Your task to perform on an android device: toggle notification dots Image 0: 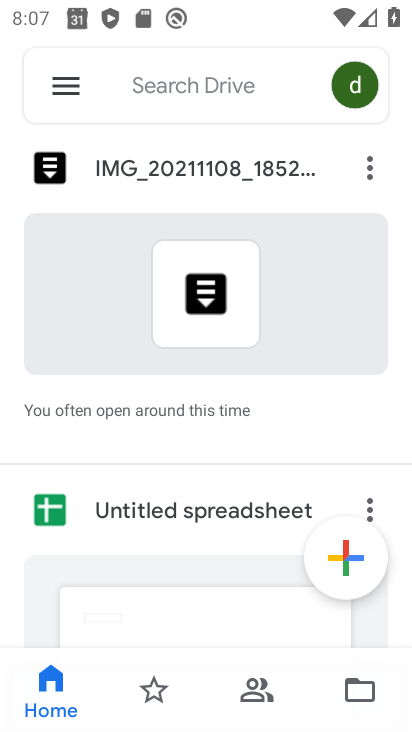
Step 0: press back button
Your task to perform on an android device: toggle notification dots Image 1: 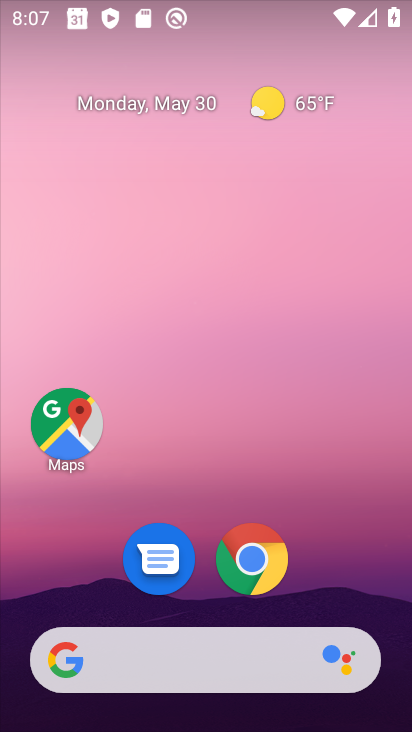
Step 1: drag from (210, 377) to (238, 50)
Your task to perform on an android device: toggle notification dots Image 2: 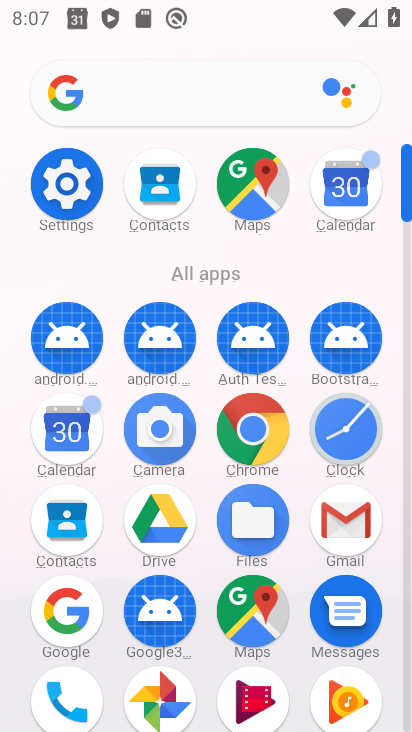
Step 2: click (49, 170)
Your task to perform on an android device: toggle notification dots Image 3: 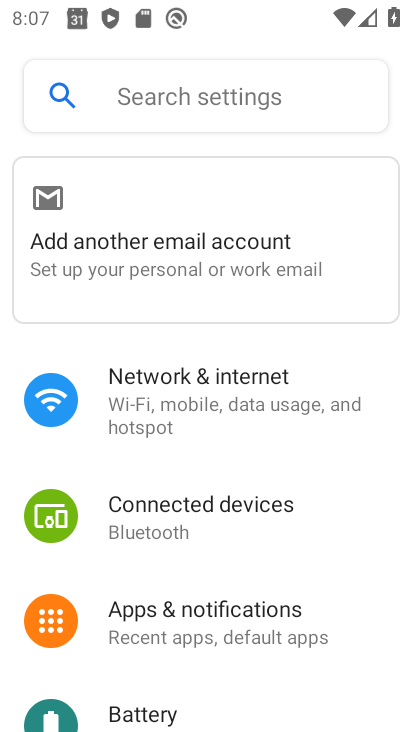
Step 3: click (177, 635)
Your task to perform on an android device: toggle notification dots Image 4: 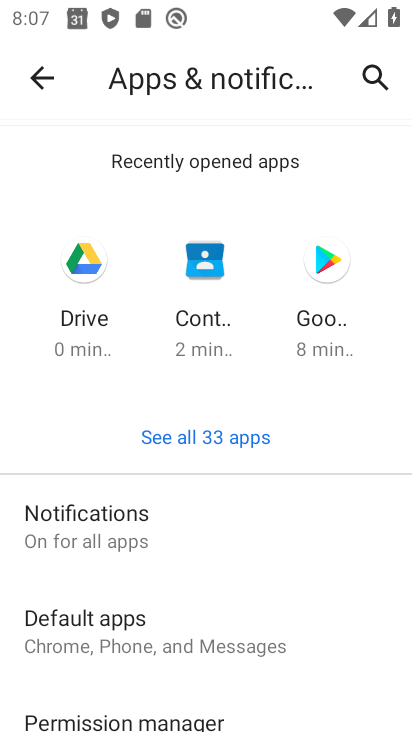
Step 4: click (144, 494)
Your task to perform on an android device: toggle notification dots Image 5: 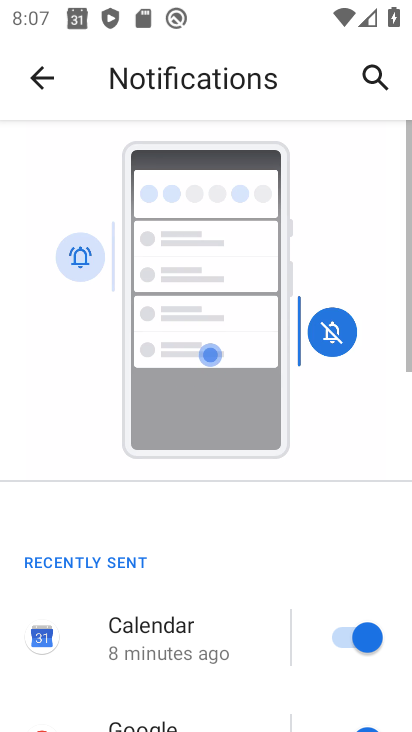
Step 5: drag from (162, 662) to (253, 101)
Your task to perform on an android device: toggle notification dots Image 6: 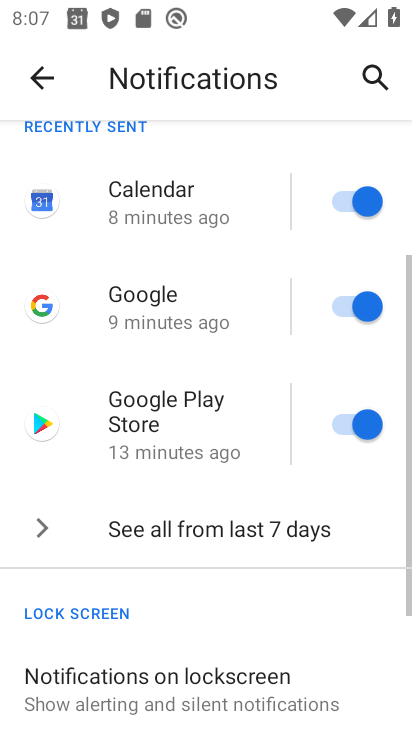
Step 6: drag from (186, 639) to (247, 129)
Your task to perform on an android device: toggle notification dots Image 7: 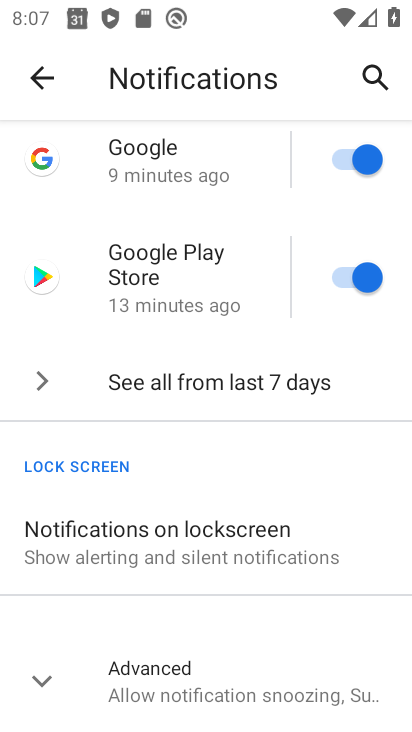
Step 7: click (163, 690)
Your task to perform on an android device: toggle notification dots Image 8: 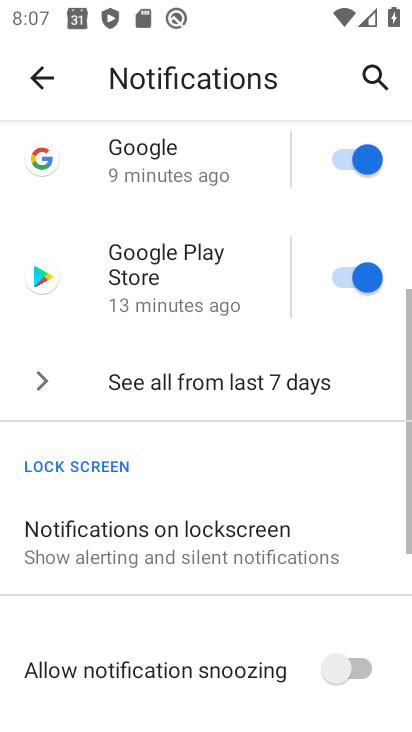
Step 8: drag from (189, 667) to (229, 167)
Your task to perform on an android device: toggle notification dots Image 9: 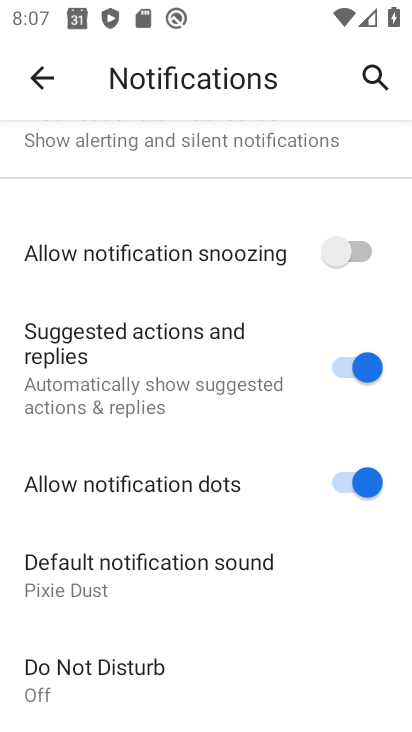
Step 9: click (362, 471)
Your task to perform on an android device: toggle notification dots Image 10: 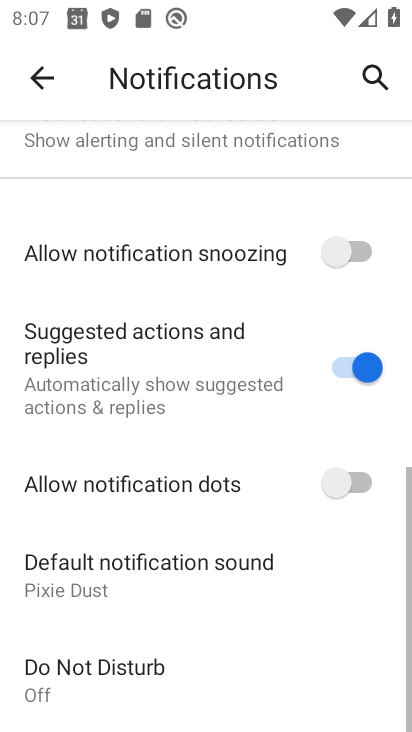
Step 10: task complete